Your task to perform on an android device: delete browsing data in the chrome app Image 0: 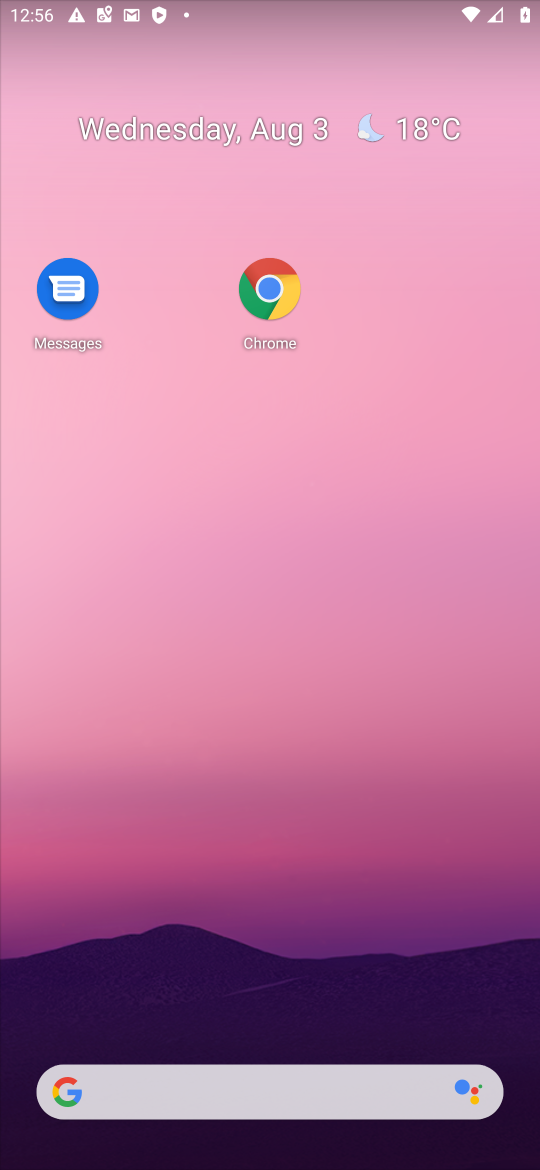
Step 0: click (278, 287)
Your task to perform on an android device: delete browsing data in the chrome app Image 1: 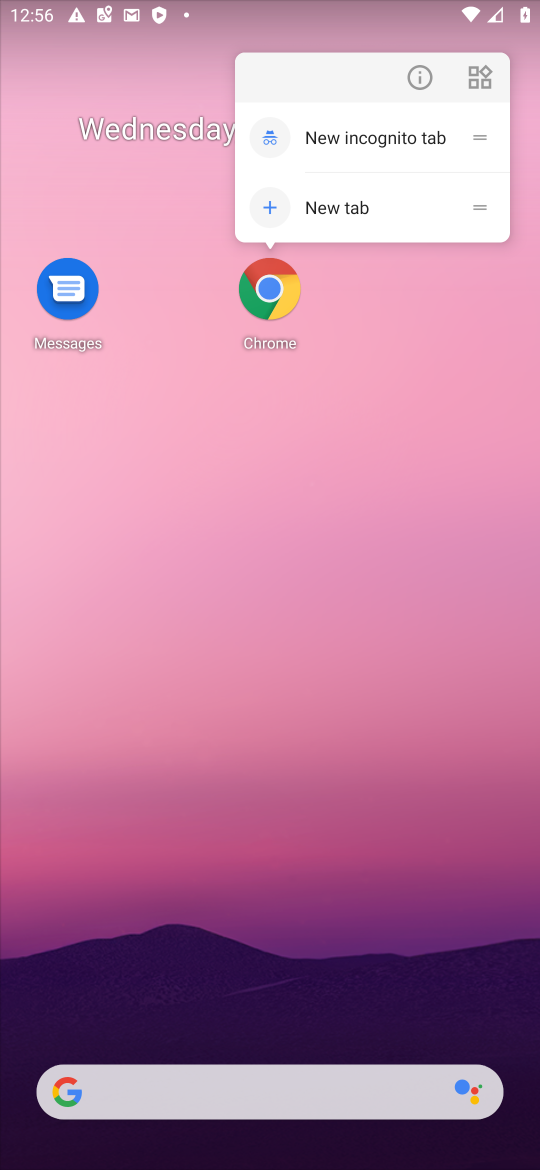
Step 1: click (434, 79)
Your task to perform on an android device: delete browsing data in the chrome app Image 2: 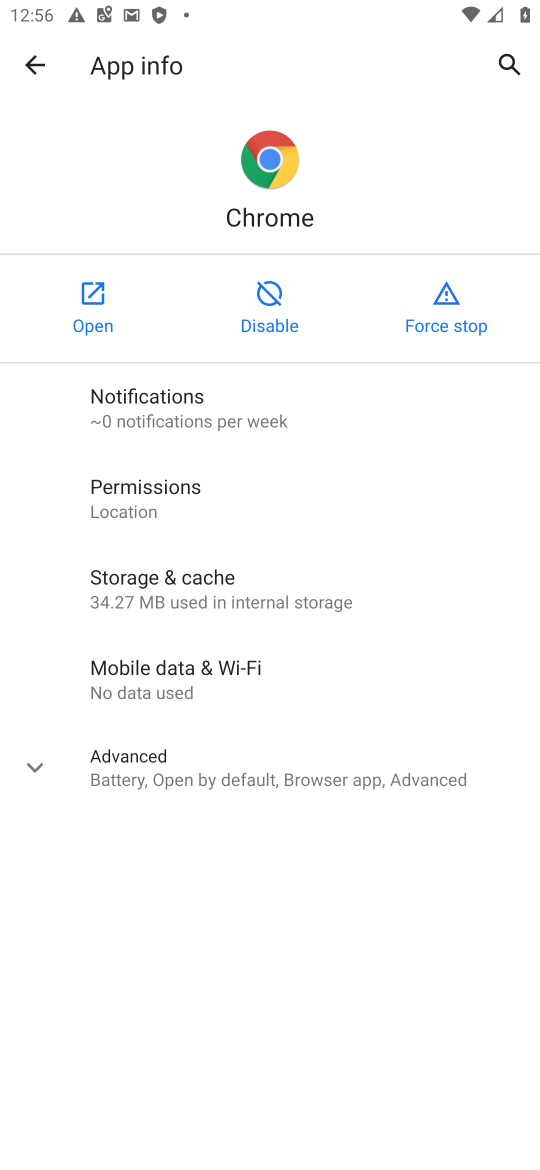
Step 2: task complete